Your task to perform on an android device: all mails in gmail Image 0: 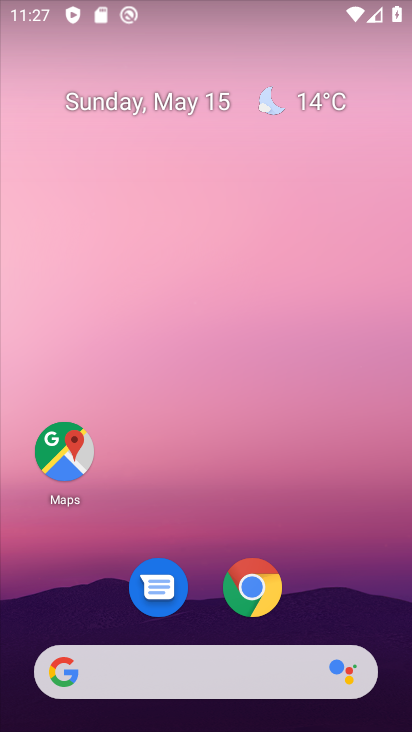
Step 0: drag from (203, 622) to (205, 1)
Your task to perform on an android device: all mails in gmail Image 1: 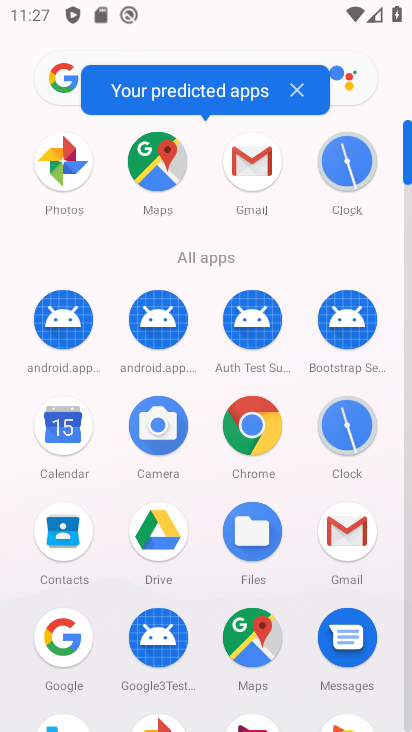
Step 1: click (250, 150)
Your task to perform on an android device: all mails in gmail Image 2: 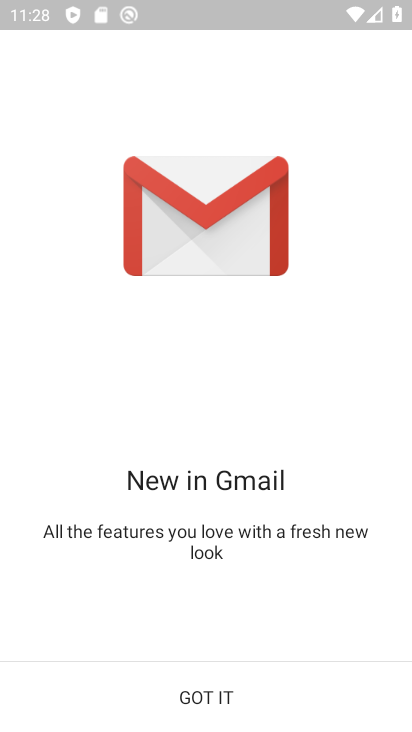
Step 2: click (272, 687)
Your task to perform on an android device: all mails in gmail Image 3: 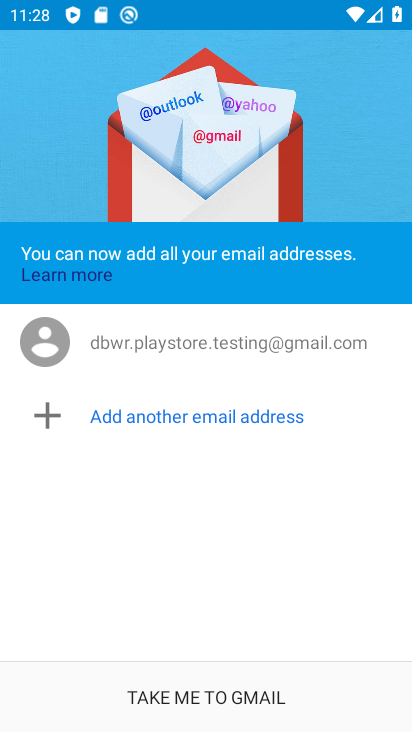
Step 3: click (207, 707)
Your task to perform on an android device: all mails in gmail Image 4: 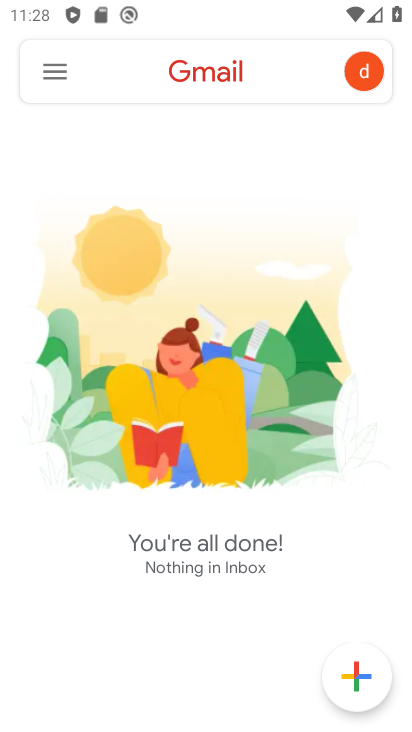
Step 4: click (59, 68)
Your task to perform on an android device: all mails in gmail Image 5: 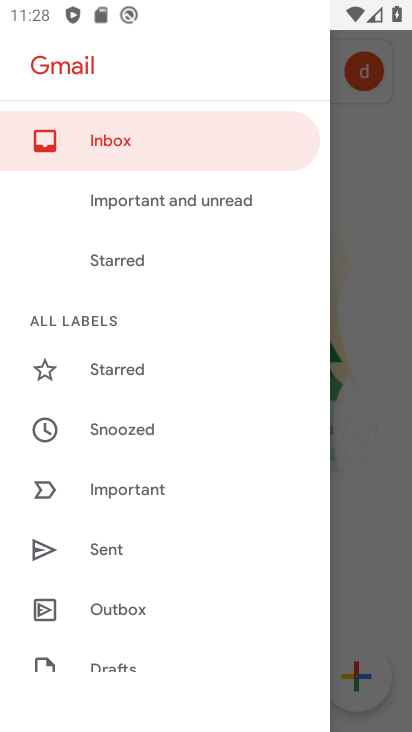
Step 5: drag from (185, 657) to (197, 396)
Your task to perform on an android device: all mails in gmail Image 6: 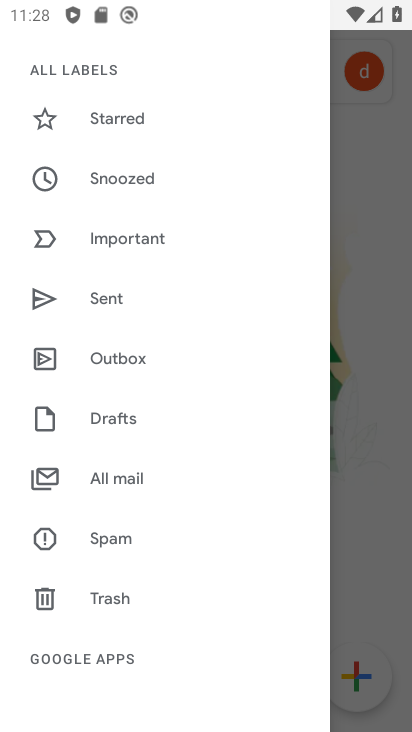
Step 6: click (145, 474)
Your task to perform on an android device: all mails in gmail Image 7: 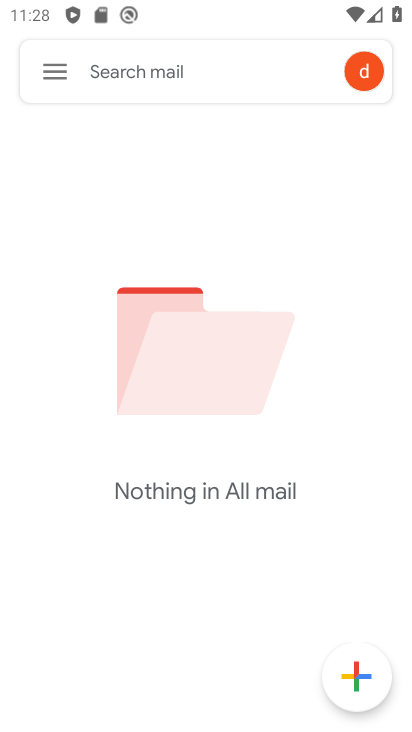
Step 7: task complete